Your task to perform on an android device: Open privacy settings Image 0: 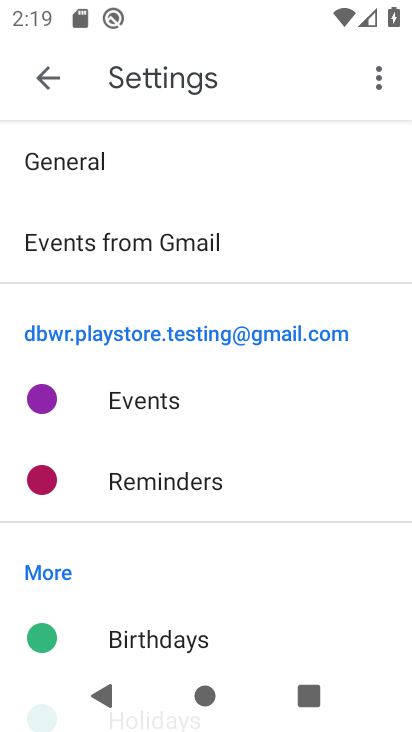
Step 0: press home button
Your task to perform on an android device: Open privacy settings Image 1: 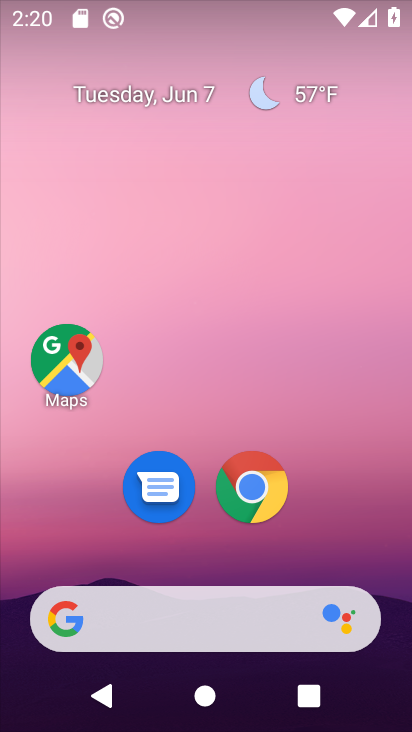
Step 1: drag from (254, 586) to (253, 27)
Your task to perform on an android device: Open privacy settings Image 2: 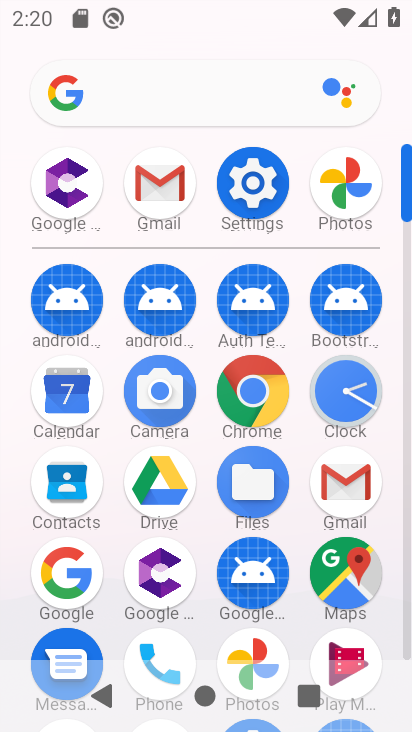
Step 2: click (237, 176)
Your task to perform on an android device: Open privacy settings Image 3: 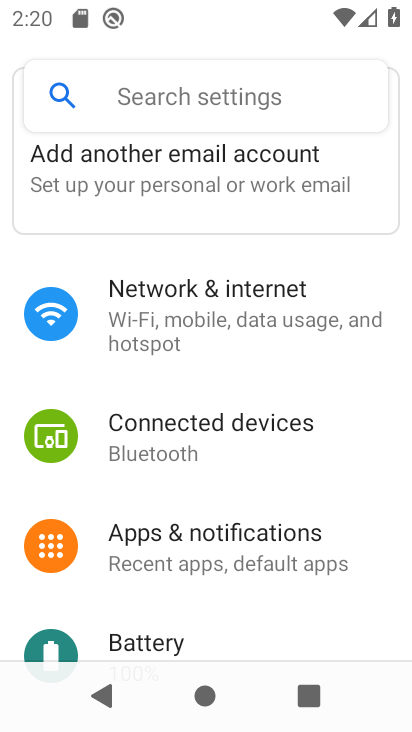
Step 3: drag from (325, 493) to (307, 76)
Your task to perform on an android device: Open privacy settings Image 4: 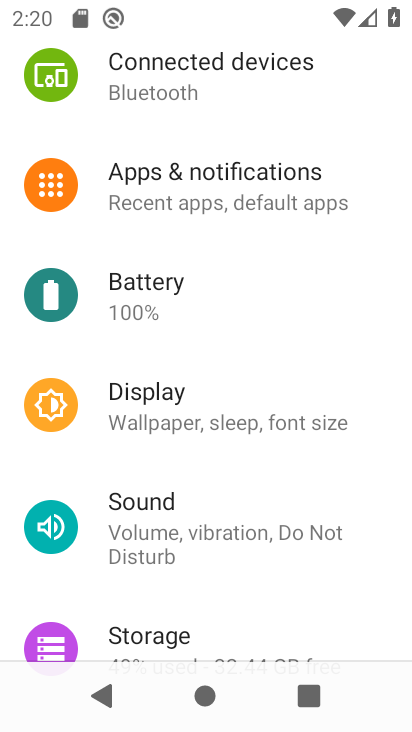
Step 4: drag from (206, 591) to (186, 46)
Your task to perform on an android device: Open privacy settings Image 5: 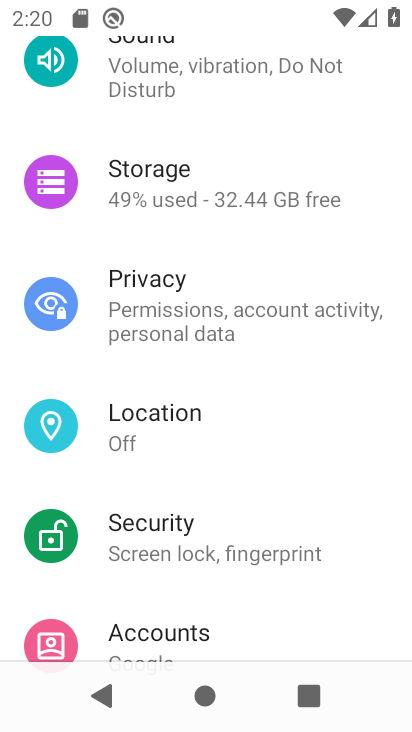
Step 5: drag from (223, 566) to (196, 432)
Your task to perform on an android device: Open privacy settings Image 6: 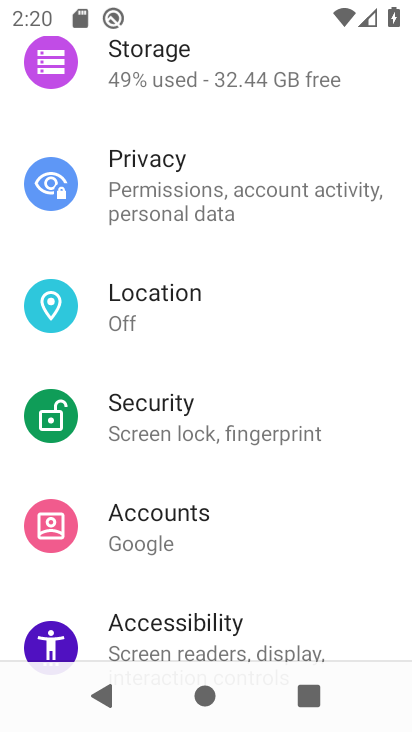
Step 6: click (199, 177)
Your task to perform on an android device: Open privacy settings Image 7: 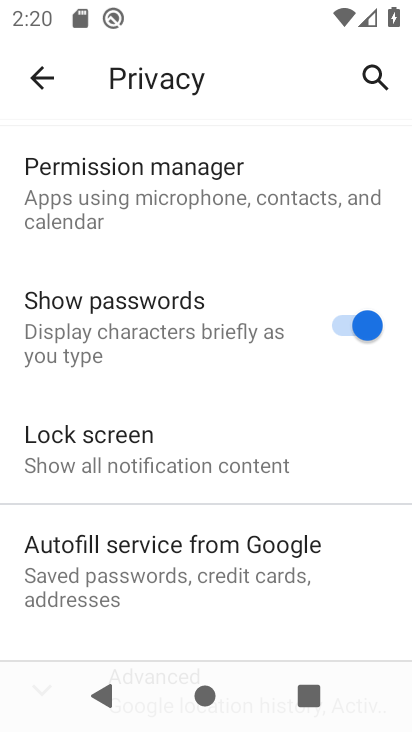
Step 7: task complete